Your task to perform on an android device: turn off improve location accuracy Image 0: 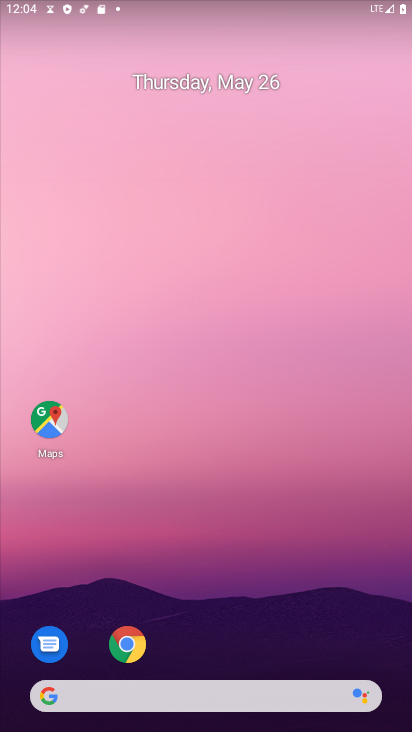
Step 0: drag from (248, 314) to (210, 96)
Your task to perform on an android device: turn off improve location accuracy Image 1: 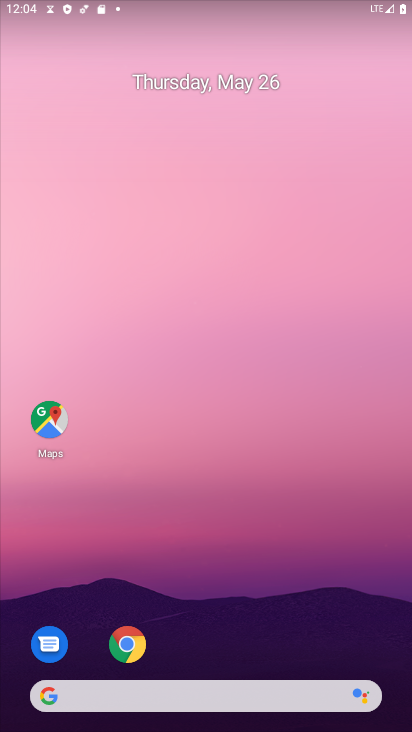
Step 1: drag from (230, 563) to (201, 11)
Your task to perform on an android device: turn off improve location accuracy Image 2: 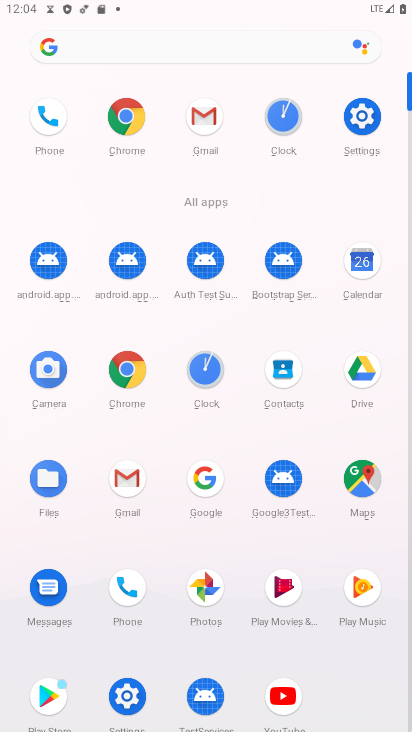
Step 2: click (362, 116)
Your task to perform on an android device: turn off improve location accuracy Image 3: 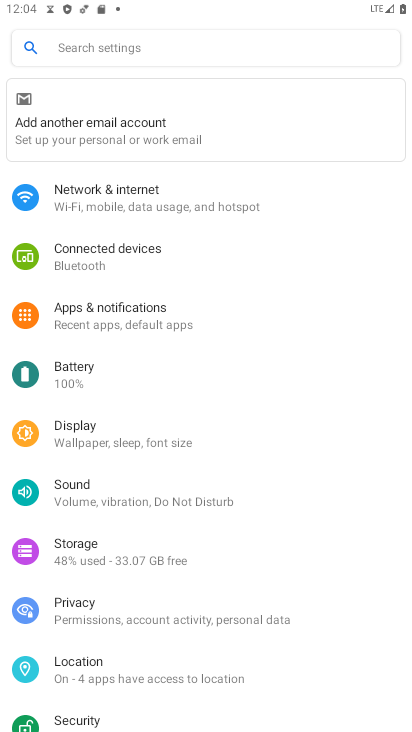
Step 3: click (179, 452)
Your task to perform on an android device: turn off improve location accuracy Image 4: 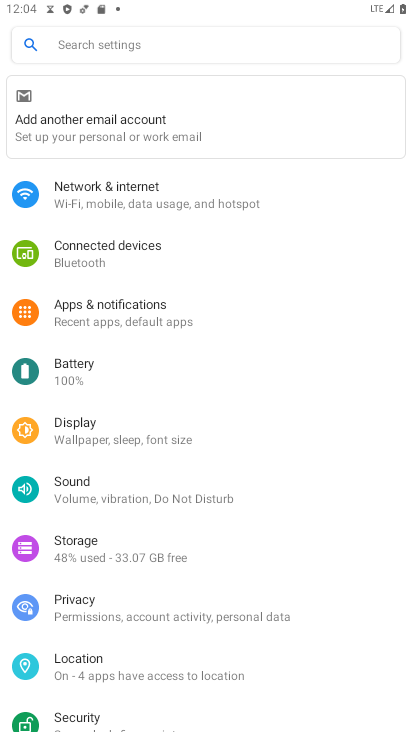
Step 4: click (123, 672)
Your task to perform on an android device: turn off improve location accuracy Image 5: 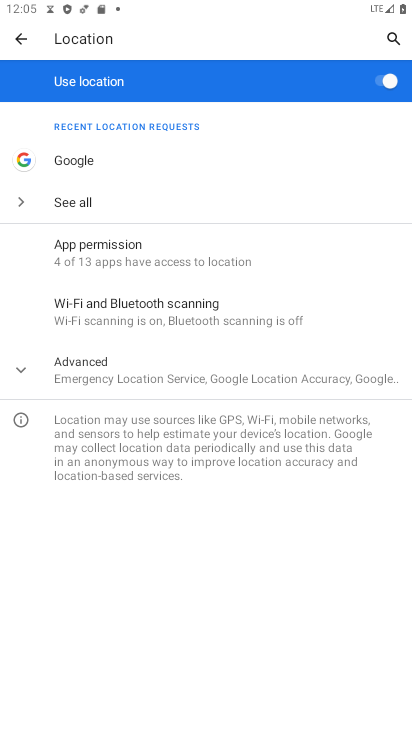
Step 5: click (176, 378)
Your task to perform on an android device: turn off improve location accuracy Image 6: 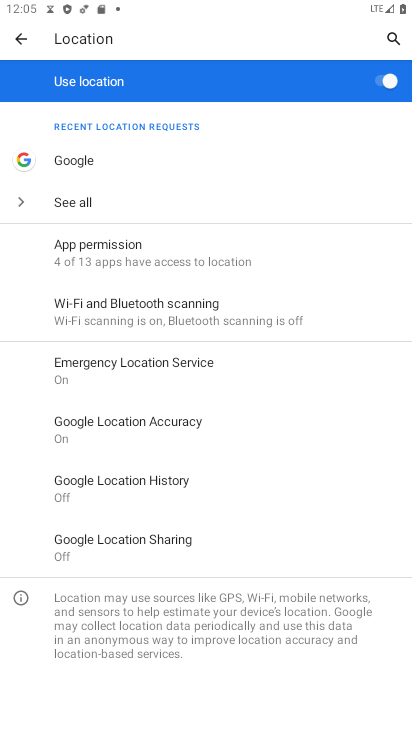
Step 6: click (190, 420)
Your task to perform on an android device: turn off improve location accuracy Image 7: 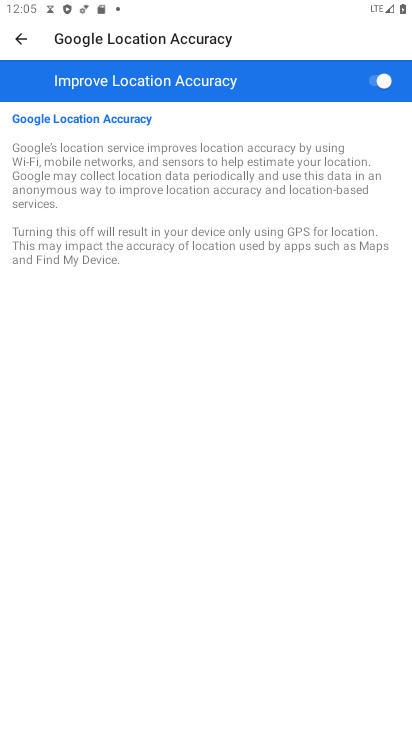
Step 7: click (372, 83)
Your task to perform on an android device: turn off improve location accuracy Image 8: 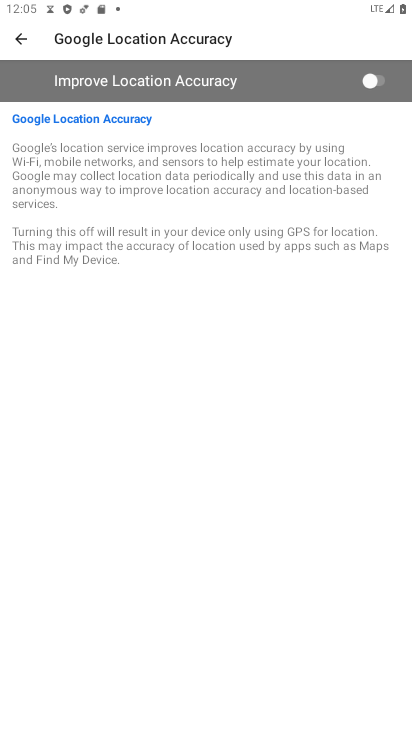
Step 8: task complete